Your task to perform on an android device: check battery use Image 0: 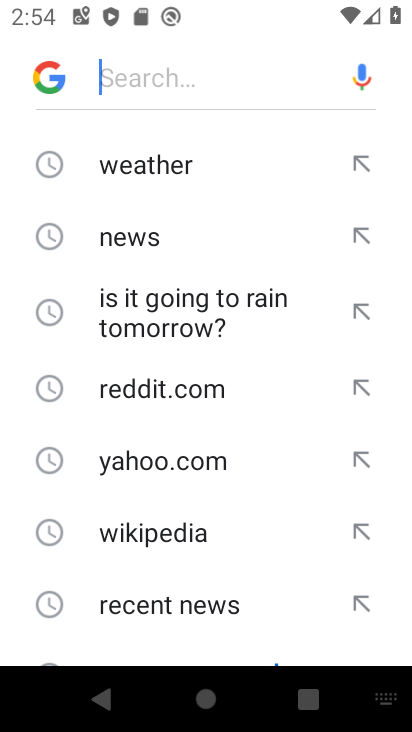
Step 0: press home button
Your task to perform on an android device: check battery use Image 1: 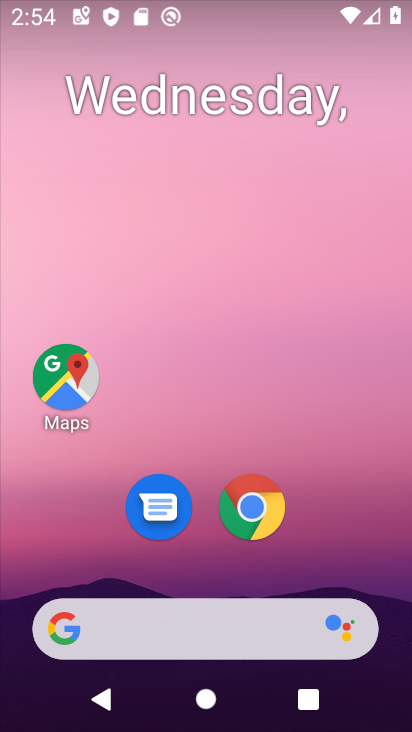
Step 1: drag from (341, 553) to (360, 2)
Your task to perform on an android device: check battery use Image 2: 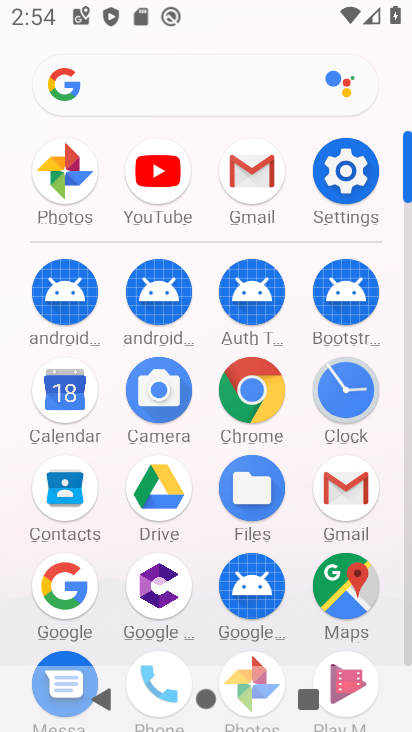
Step 2: click (341, 180)
Your task to perform on an android device: check battery use Image 3: 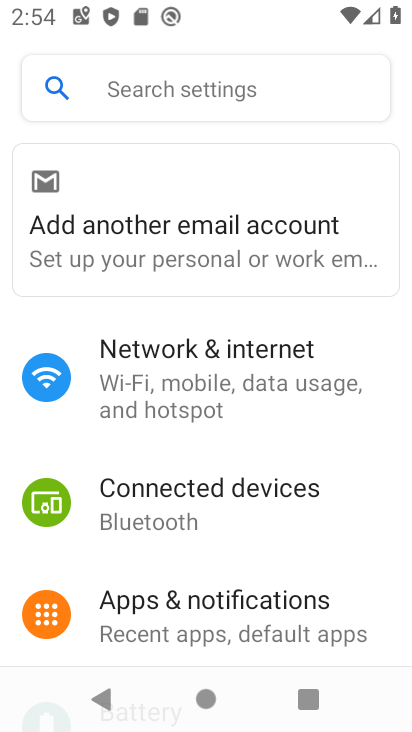
Step 3: drag from (234, 582) to (240, 238)
Your task to perform on an android device: check battery use Image 4: 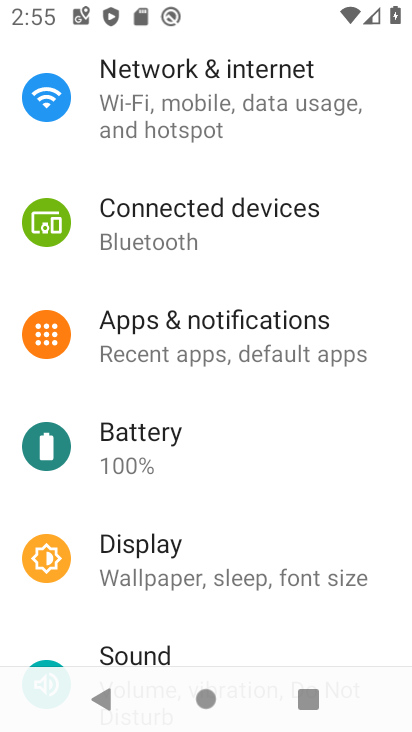
Step 4: click (221, 469)
Your task to perform on an android device: check battery use Image 5: 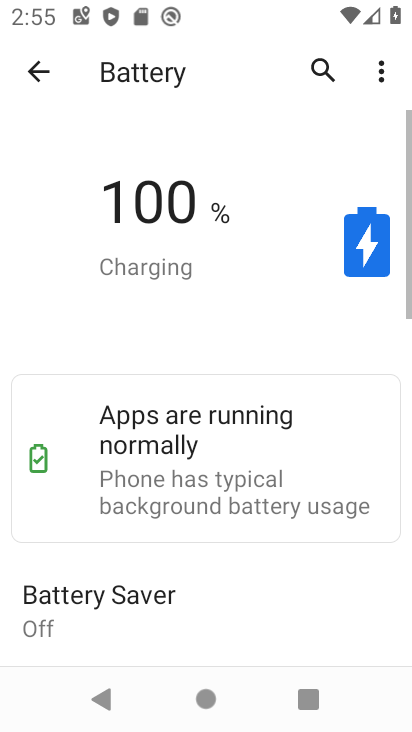
Step 5: task complete